Your task to perform on an android device: Open the calendar app, open the side menu, and click the "Day" option Image 0: 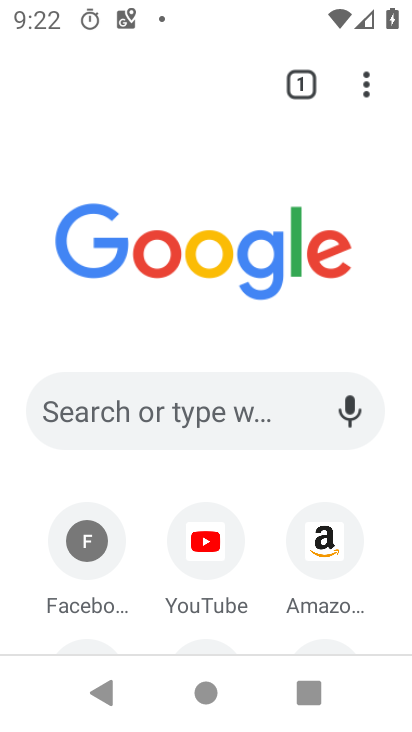
Step 0: press home button
Your task to perform on an android device: Open the calendar app, open the side menu, and click the "Day" option Image 1: 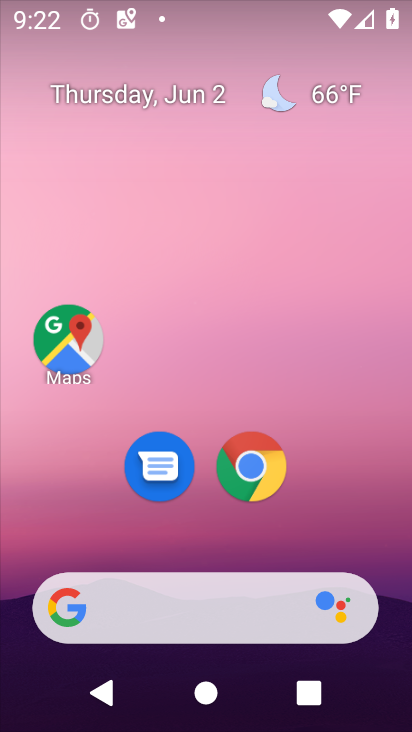
Step 1: drag from (99, 470) to (250, 207)
Your task to perform on an android device: Open the calendar app, open the side menu, and click the "Day" option Image 2: 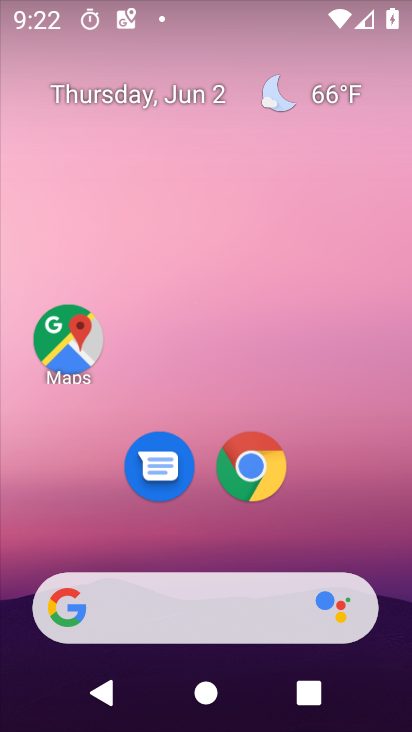
Step 2: drag from (0, 519) to (184, 142)
Your task to perform on an android device: Open the calendar app, open the side menu, and click the "Day" option Image 3: 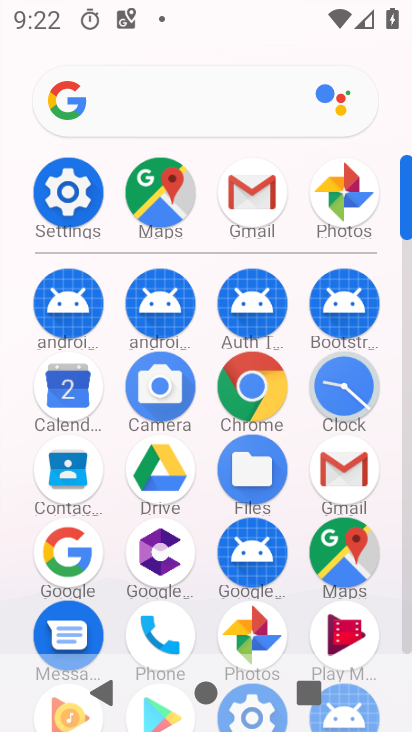
Step 3: click (52, 395)
Your task to perform on an android device: Open the calendar app, open the side menu, and click the "Day" option Image 4: 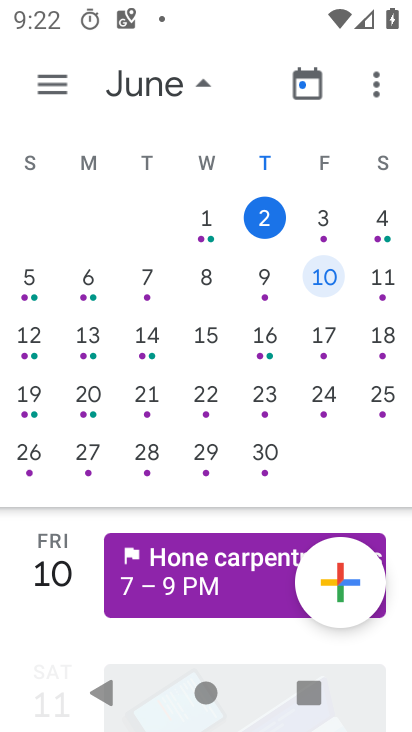
Step 4: click (46, 73)
Your task to perform on an android device: Open the calendar app, open the side menu, and click the "Day" option Image 5: 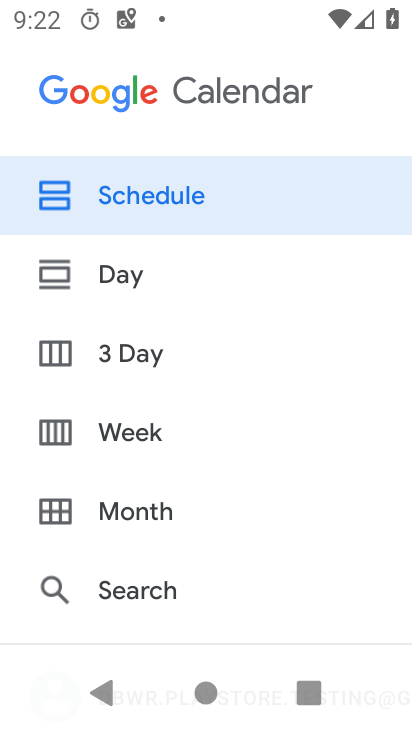
Step 5: click (124, 272)
Your task to perform on an android device: Open the calendar app, open the side menu, and click the "Day" option Image 6: 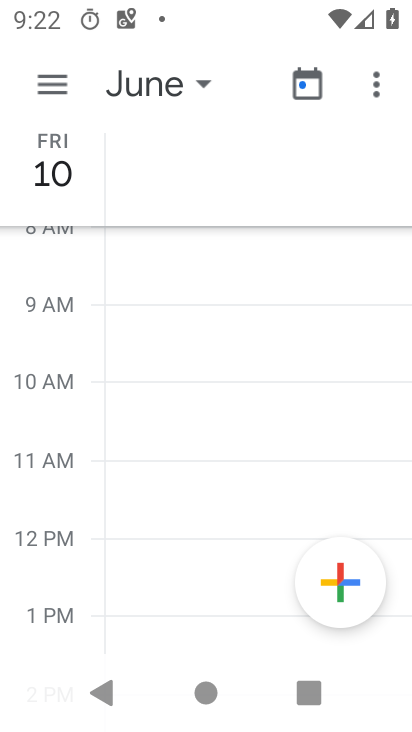
Step 6: task complete